Your task to perform on an android device: turn on priority inbox in the gmail app Image 0: 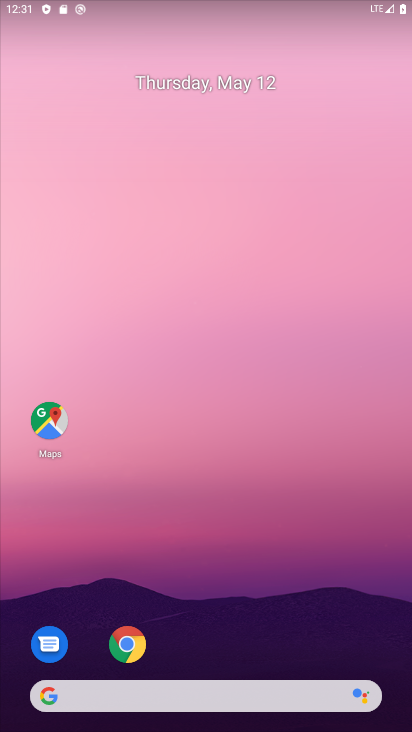
Step 0: drag from (232, 607) to (164, 92)
Your task to perform on an android device: turn on priority inbox in the gmail app Image 1: 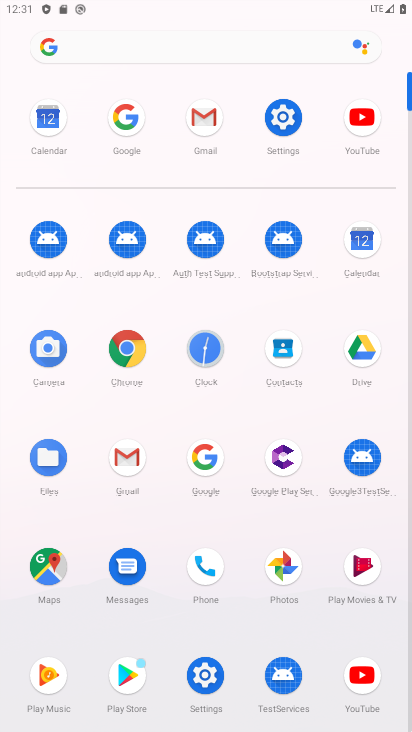
Step 1: click (192, 124)
Your task to perform on an android device: turn on priority inbox in the gmail app Image 2: 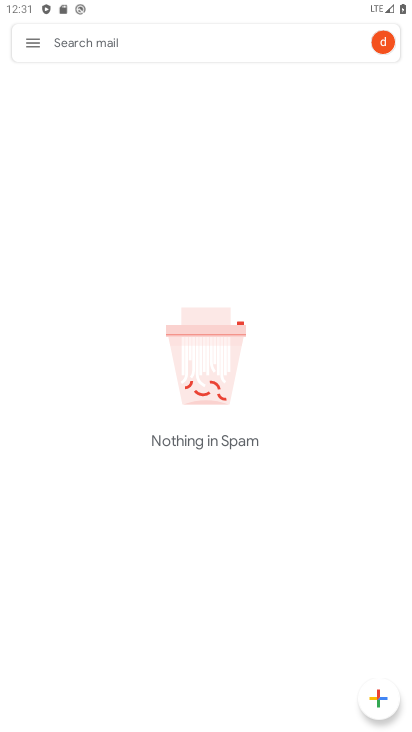
Step 2: click (23, 46)
Your task to perform on an android device: turn on priority inbox in the gmail app Image 3: 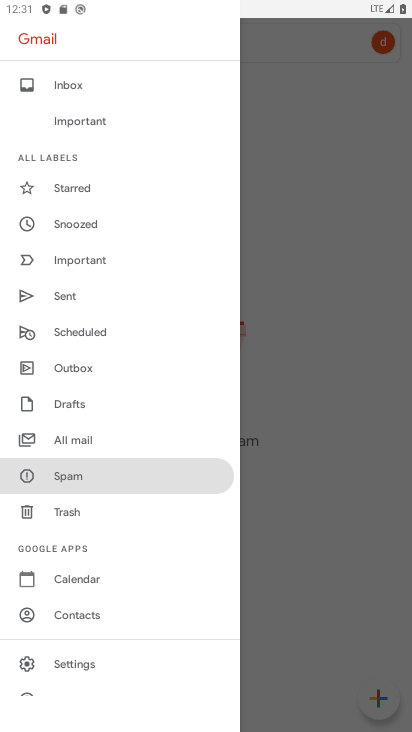
Step 3: click (106, 681)
Your task to perform on an android device: turn on priority inbox in the gmail app Image 4: 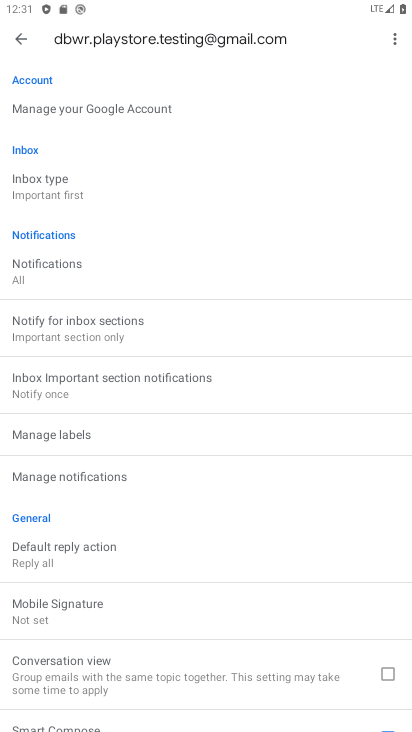
Step 4: click (72, 196)
Your task to perform on an android device: turn on priority inbox in the gmail app Image 5: 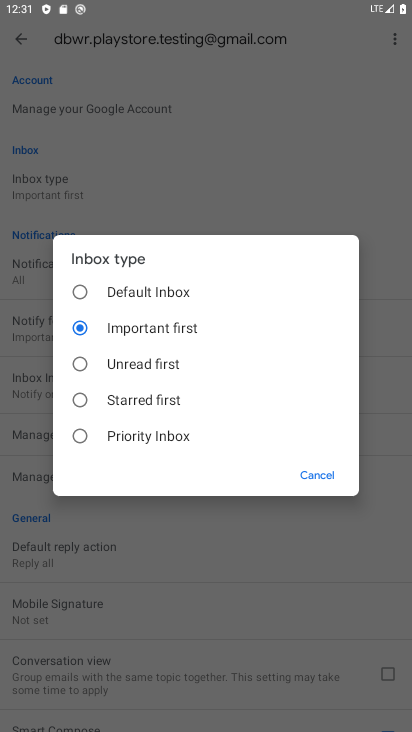
Step 5: click (149, 434)
Your task to perform on an android device: turn on priority inbox in the gmail app Image 6: 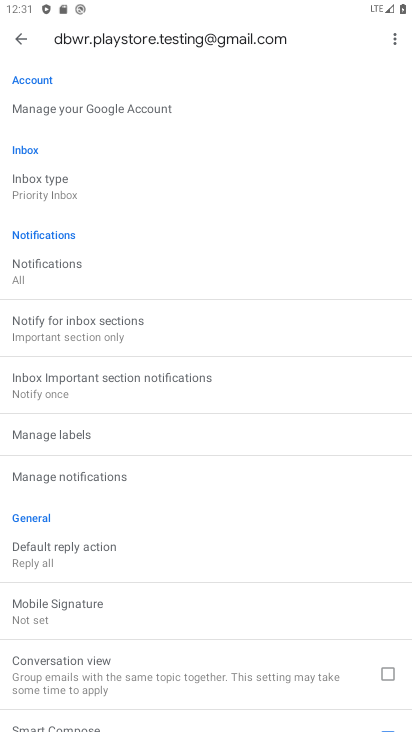
Step 6: task complete